Your task to perform on an android device: Set the phone to "Do not disturb". Image 0: 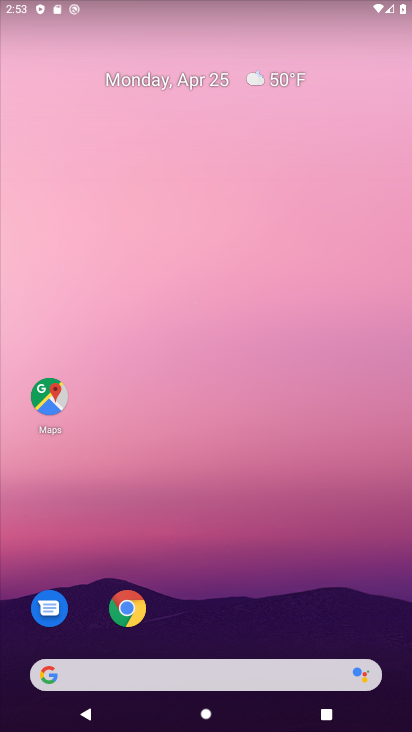
Step 0: drag from (199, 619) to (225, 236)
Your task to perform on an android device: Set the phone to "Do not disturb". Image 1: 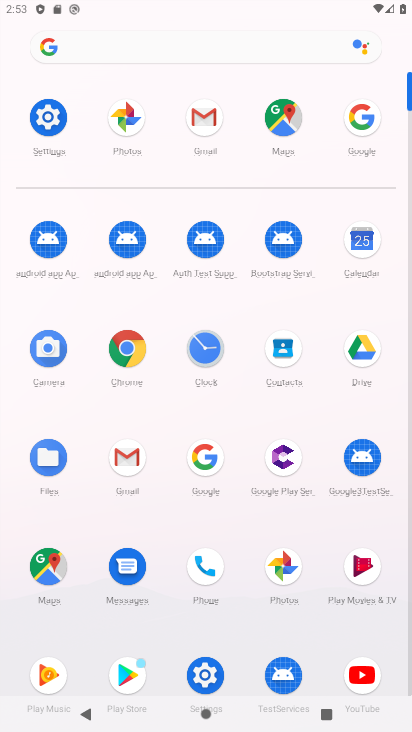
Step 1: click (62, 130)
Your task to perform on an android device: Set the phone to "Do not disturb". Image 2: 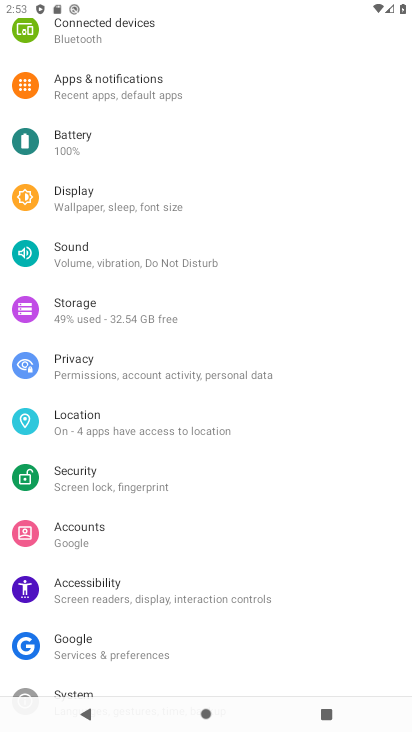
Step 2: click (95, 252)
Your task to perform on an android device: Set the phone to "Do not disturb". Image 3: 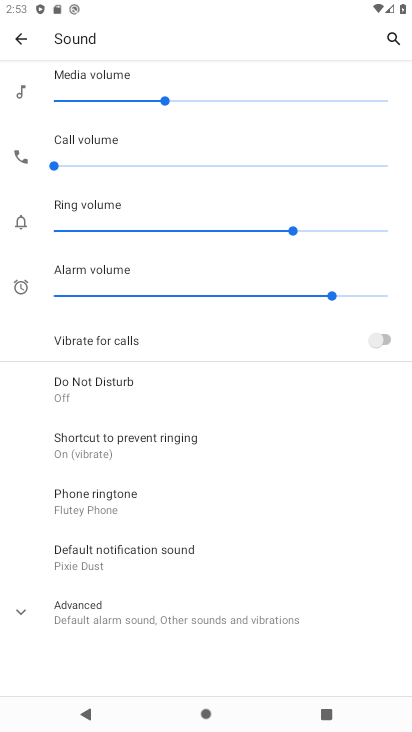
Step 3: click (94, 390)
Your task to perform on an android device: Set the phone to "Do not disturb". Image 4: 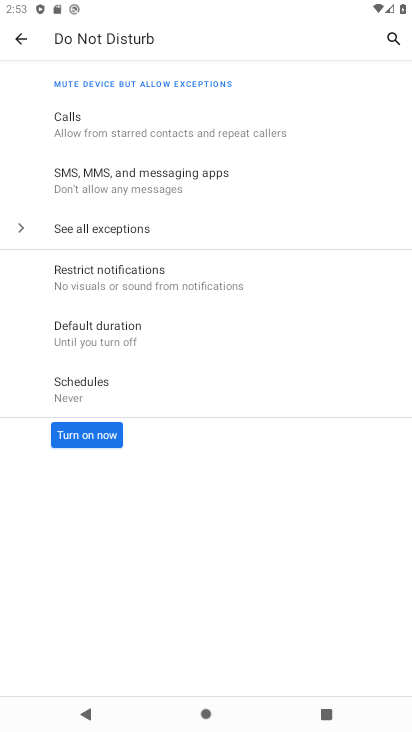
Step 4: click (116, 433)
Your task to perform on an android device: Set the phone to "Do not disturb". Image 5: 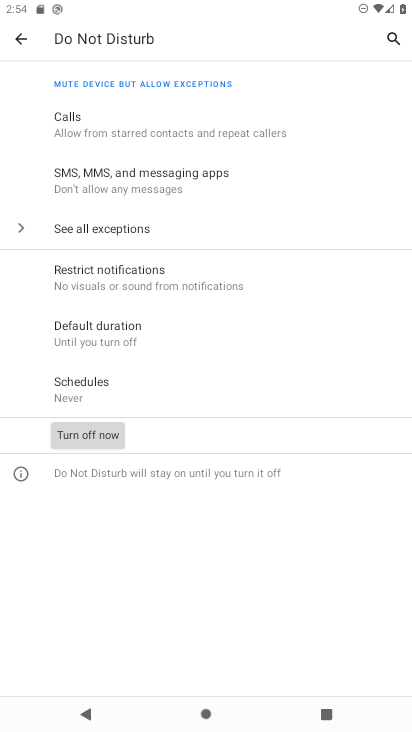
Step 5: task complete